Your task to perform on an android device: Go to sound settings Image 0: 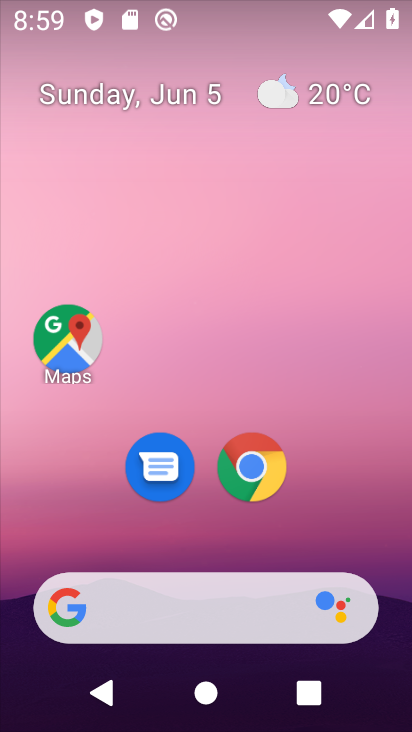
Step 0: drag from (325, 524) to (320, 3)
Your task to perform on an android device: Go to sound settings Image 1: 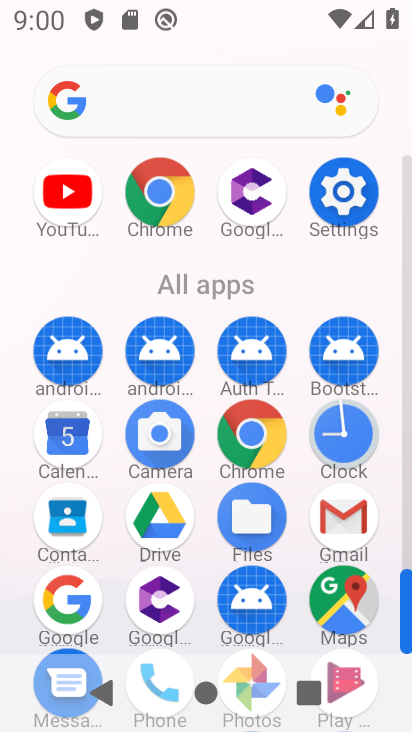
Step 1: click (346, 198)
Your task to perform on an android device: Go to sound settings Image 2: 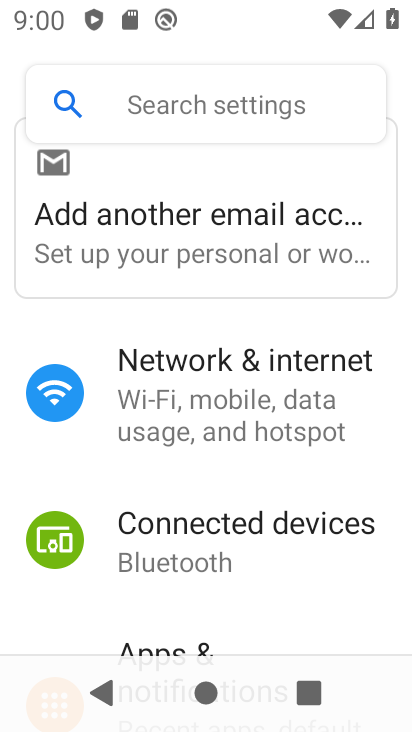
Step 2: drag from (248, 530) to (253, 200)
Your task to perform on an android device: Go to sound settings Image 3: 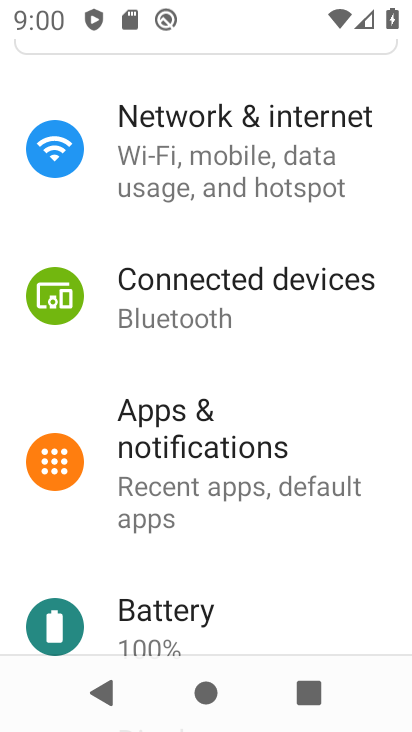
Step 3: drag from (213, 546) to (242, 80)
Your task to perform on an android device: Go to sound settings Image 4: 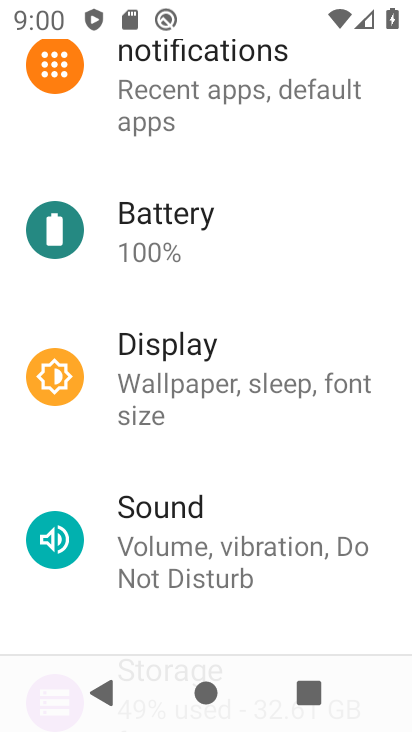
Step 4: click (146, 527)
Your task to perform on an android device: Go to sound settings Image 5: 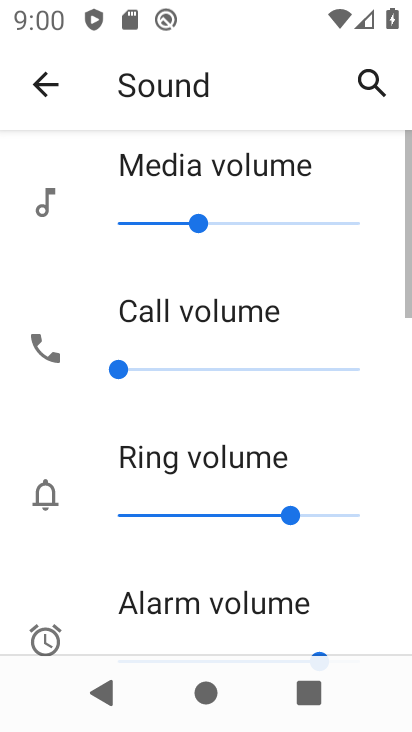
Step 5: task complete